Your task to perform on an android device: Open Wikipedia Image 0: 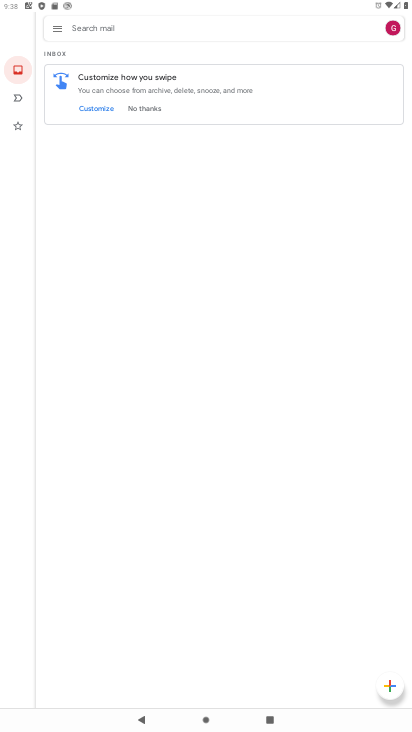
Step 0: press home button
Your task to perform on an android device: Open Wikipedia Image 1: 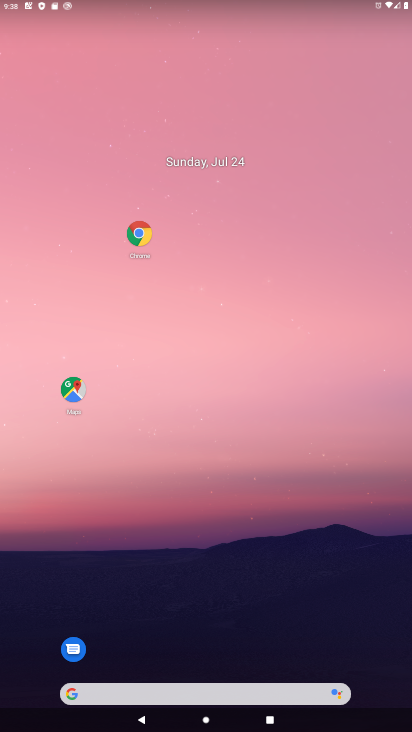
Step 1: drag from (187, 643) to (184, 167)
Your task to perform on an android device: Open Wikipedia Image 2: 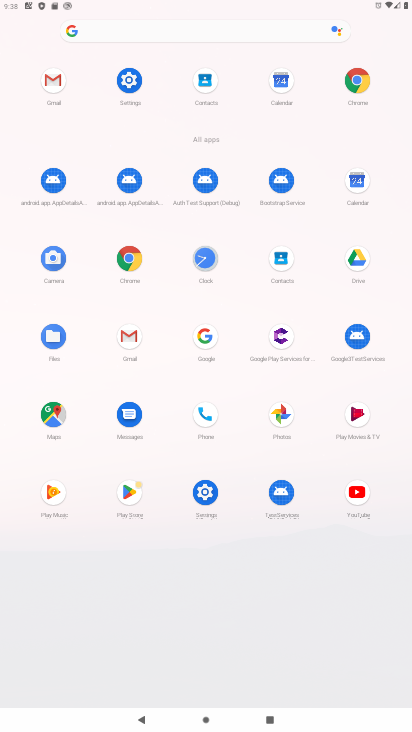
Step 2: click (125, 79)
Your task to perform on an android device: Open Wikipedia Image 3: 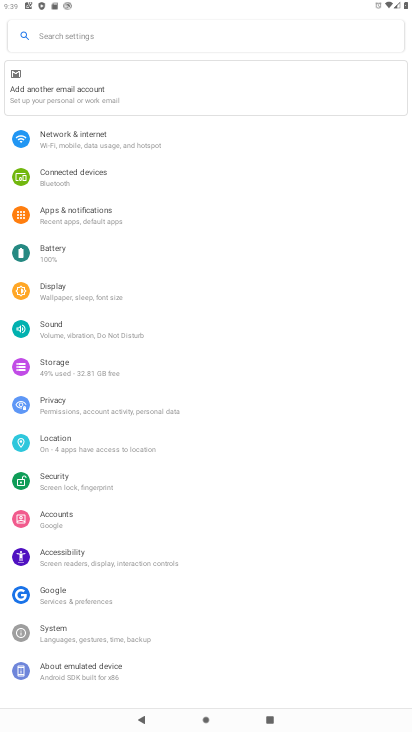
Step 3: press home button
Your task to perform on an android device: Open Wikipedia Image 4: 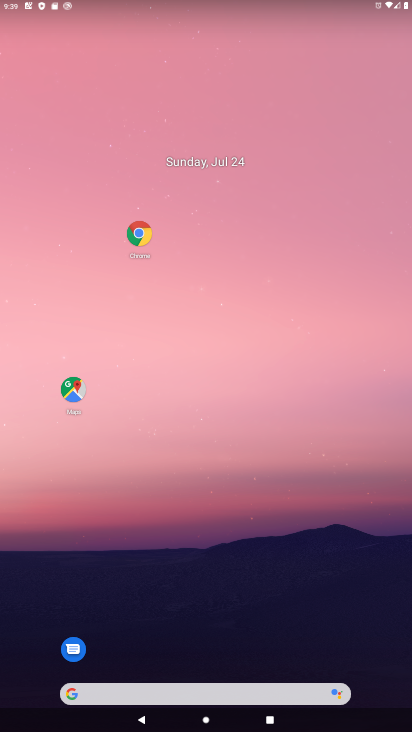
Step 4: click (139, 236)
Your task to perform on an android device: Open Wikipedia Image 5: 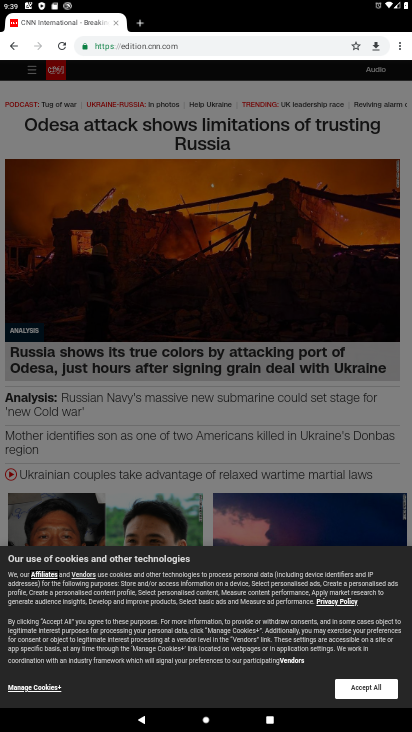
Step 5: click (14, 43)
Your task to perform on an android device: Open Wikipedia Image 6: 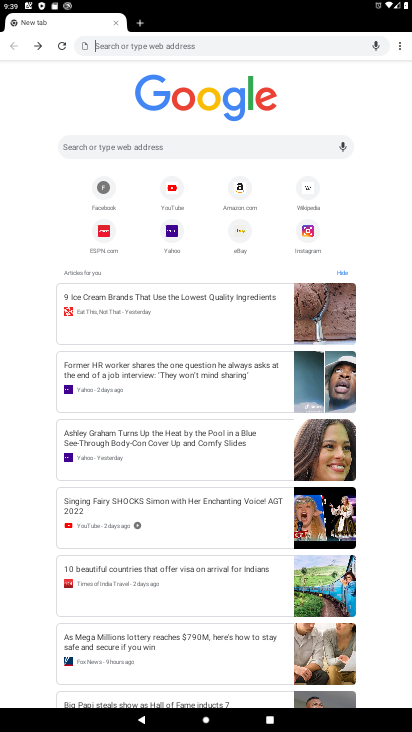
Step 6: click (301, 204)
Your task to perform on an android device: Open Wikipedia Image 7: 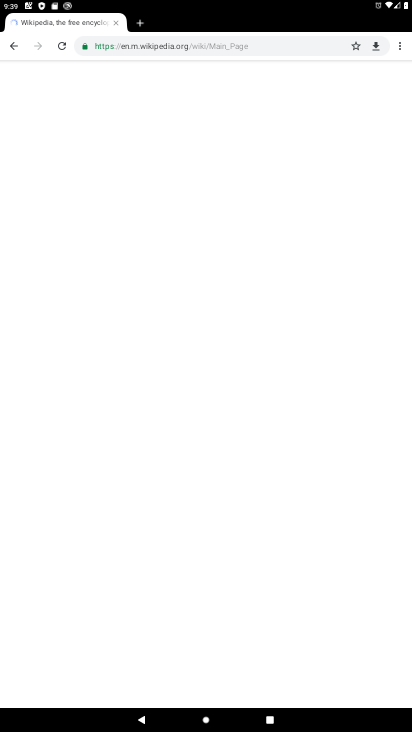
Step 7: task complete